Your task to perform on an android device: Turn on the flashlight Image 0: 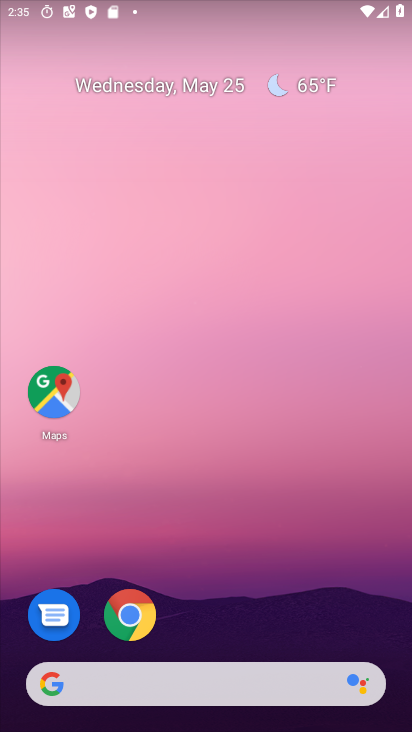
Step 0: drag from (400, 691) to (395, 163)
Your task to perform on an android device: Turn on the flashlight Image 1: 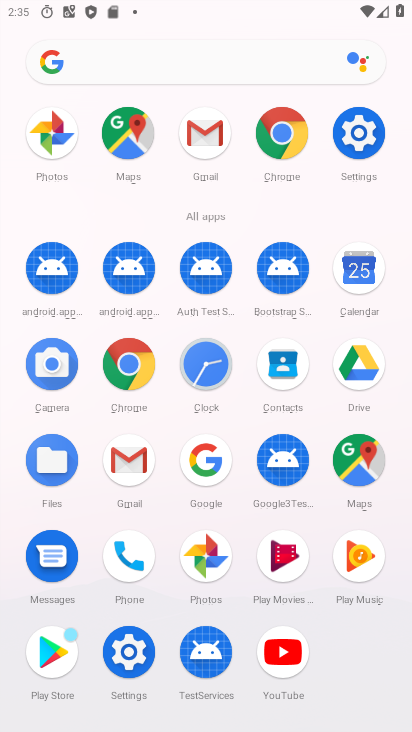
Step 1: click (350, 131)
Your task to perform on an android device: Turn on the flashlight Image 2: 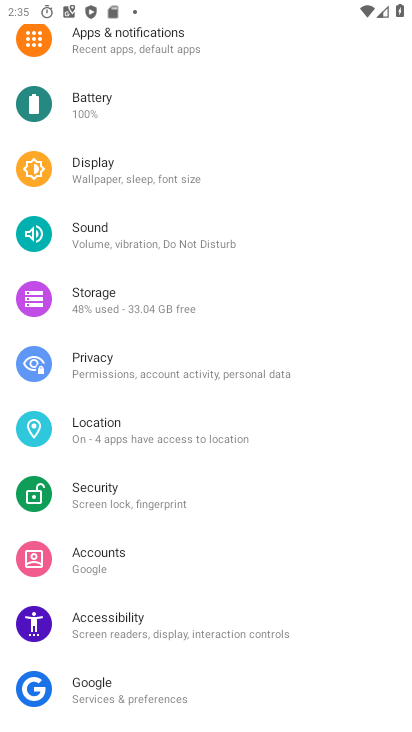
Step 2: click (98, 170)
Your task to perform on an android device: Turn on the flashlight Image 3: 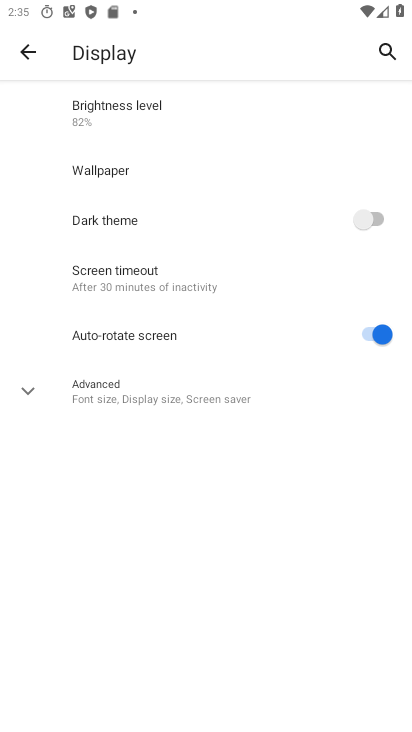
Step 3: task complete